Your task to perform on an android device: open a bookmark in the chrome app Image 0: 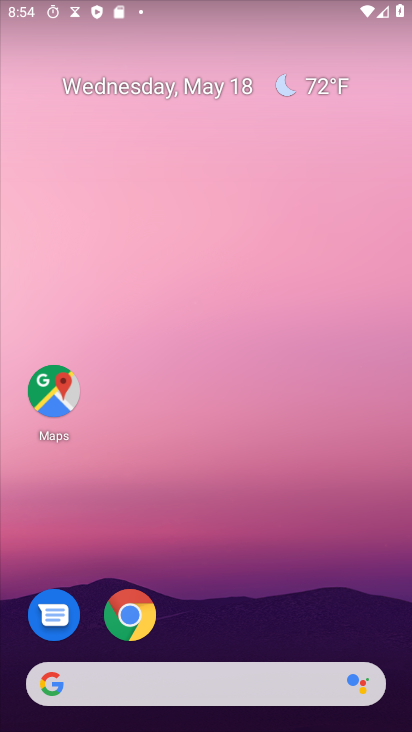
Step 0: click (127, 620)
Your task to perform on an android device: open a bookmark in the chrome app Image 1: 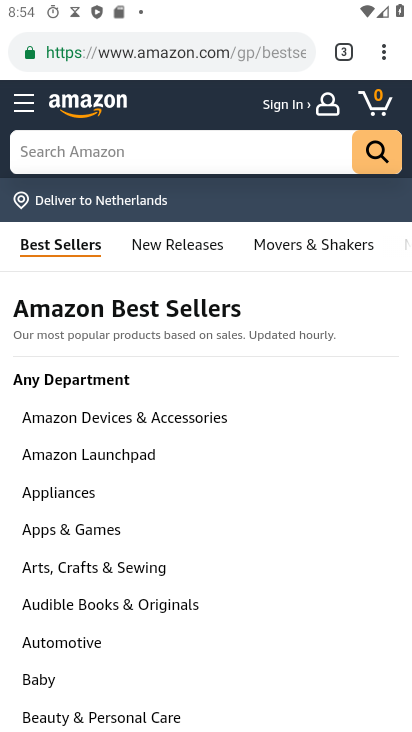
Step 1: click (385, 55)
Your task to perform on an android device: open a bookmark in the chrome app Image 2: 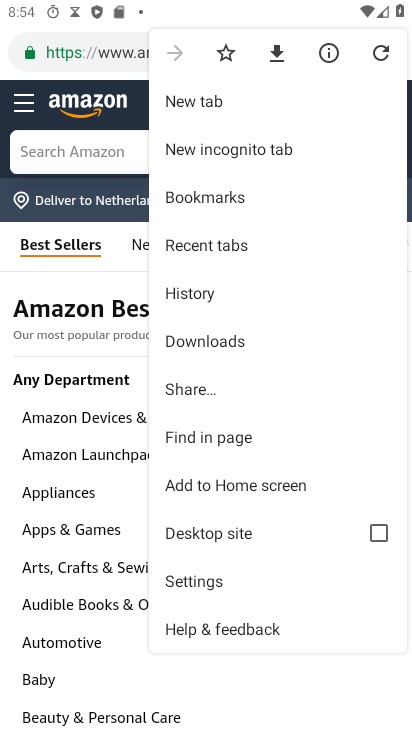
Step 2: click (247, 192)
Your task to perform on an android device: open a bookmark in the chrome app Image 3: 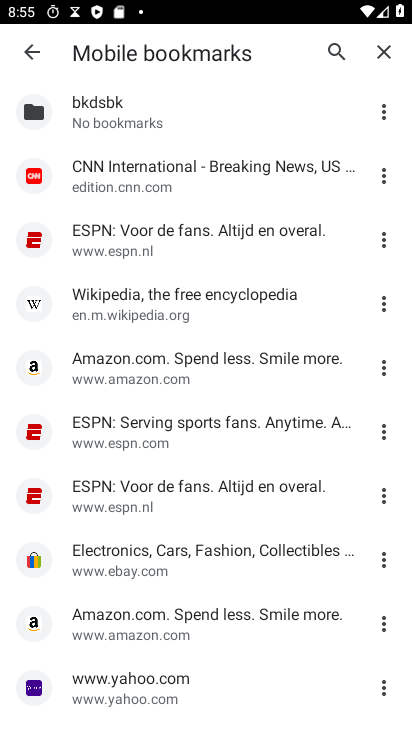
Step 3: click (235, 183)
Your task to perform on an android device: open a bookmark in the chrome app Image 4: 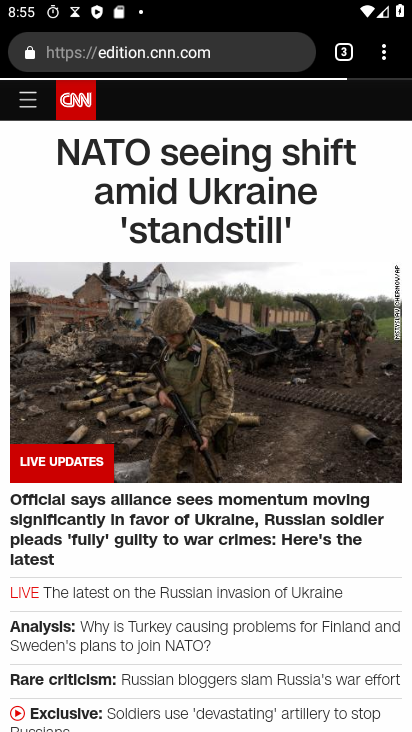
Step 4: task complete